Your task to perform on an android device: Go to Wikipedia Image 0: 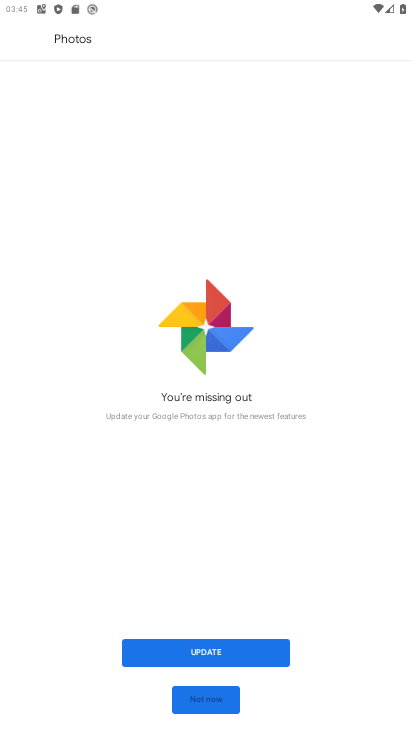
Step 0: press home button
Your task to perform on an android device: Go to Wikipedia Image 1: 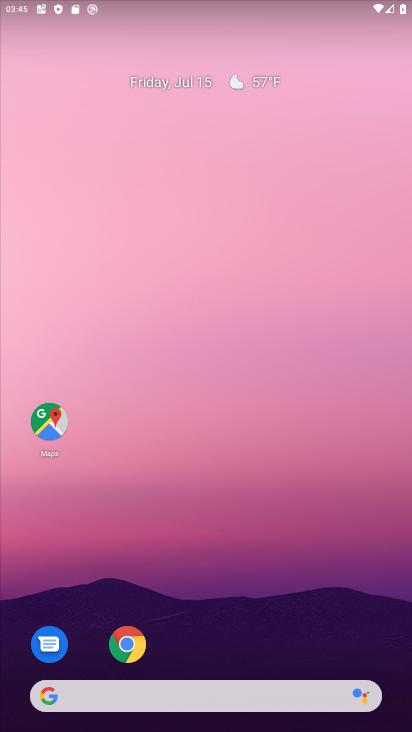
Step 1: click (132, 644)
Your task to perform on an android device: Go to Wikipedia Image 2: 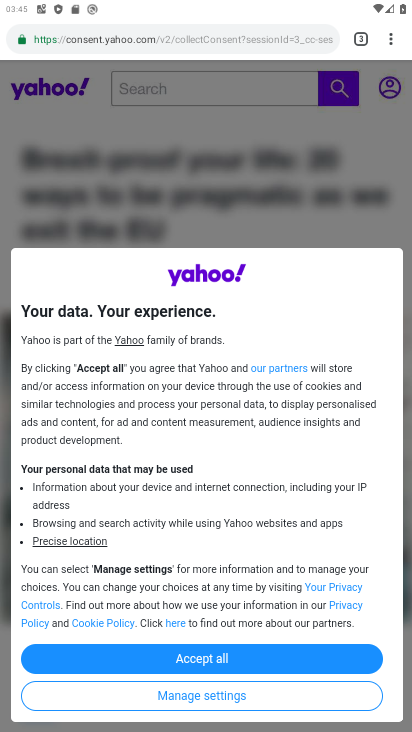
Step 2: click (351, 46)
Your task to perform on an android device: Go to Wikipedia Image 3: 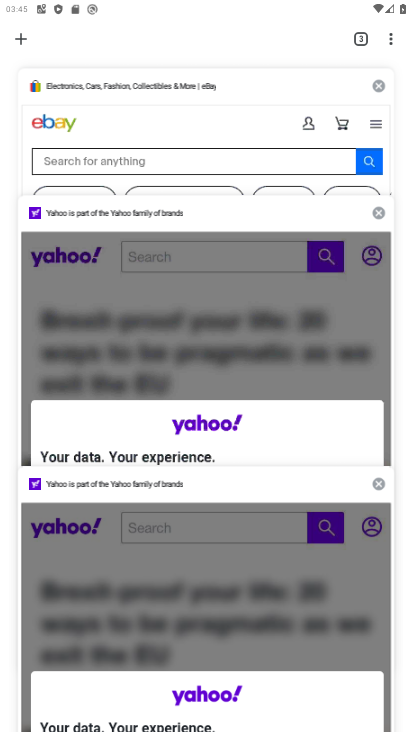
Step 3: click (30, 40)
Your task to perform on an android device: Go to Wikipedia Image 4: 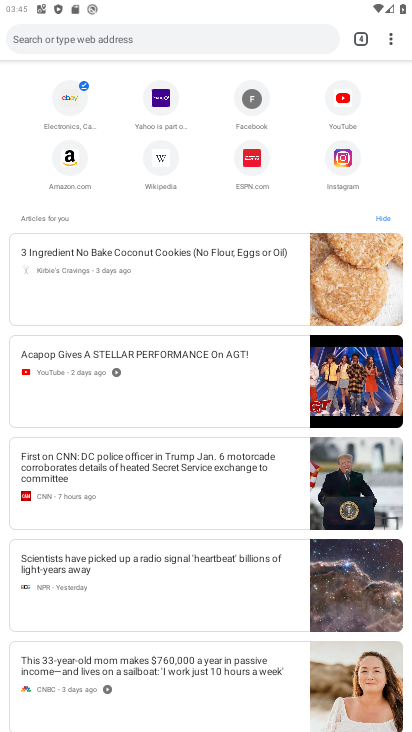
Step 4: click (143, 153)
Your task to perform on an android device: Go to Wikipedia Image 5: 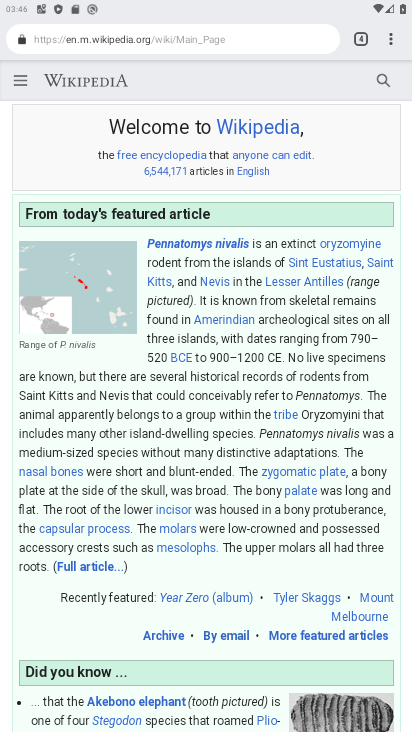
Step 5: task complete